Your task to perform on an android device: Is it going to rain tomorrow? Image 0: 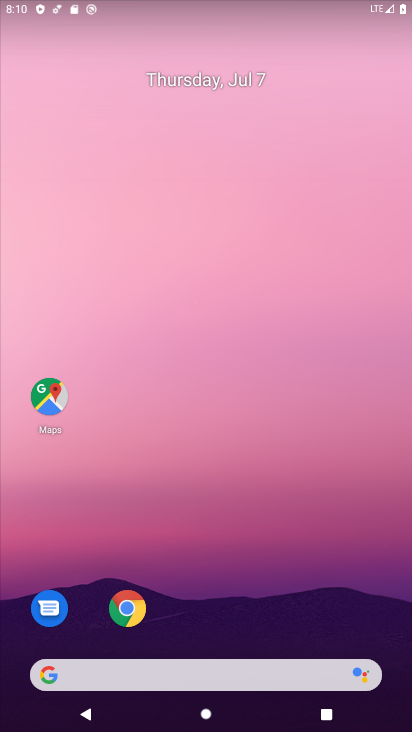
Step 0: click (267, 671)
Your task to perform on an android device: Is it going to rain tomorrow? Image 1: 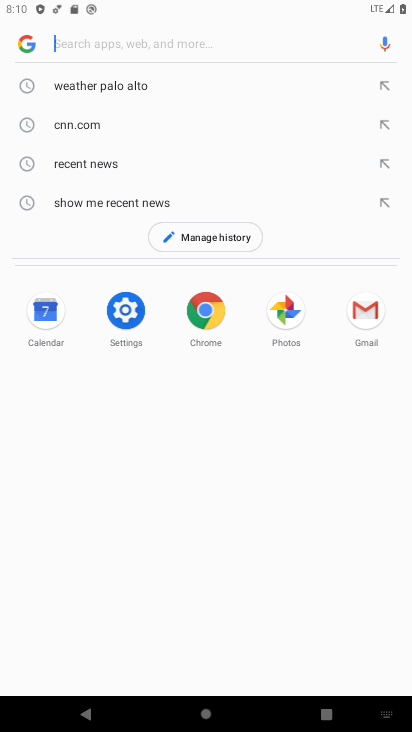
Step 1: type "weather"
Your task to perform on an android device: Is it going to rain tomorrow? Image 2: 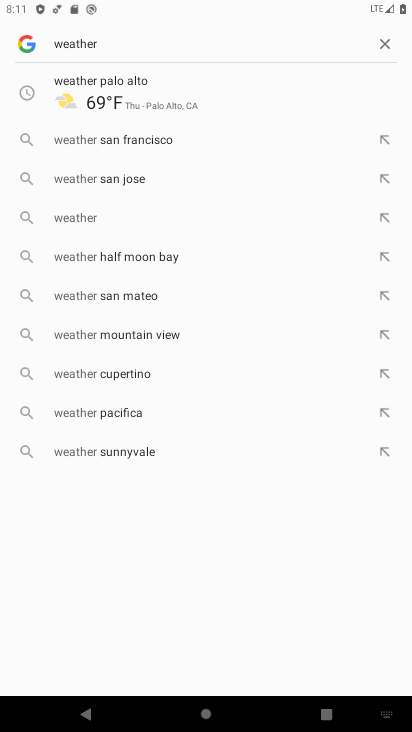
Step 2: click (135, 94)
Your task to perform on an android device: Is it going to rain tomorrow? Image 3: 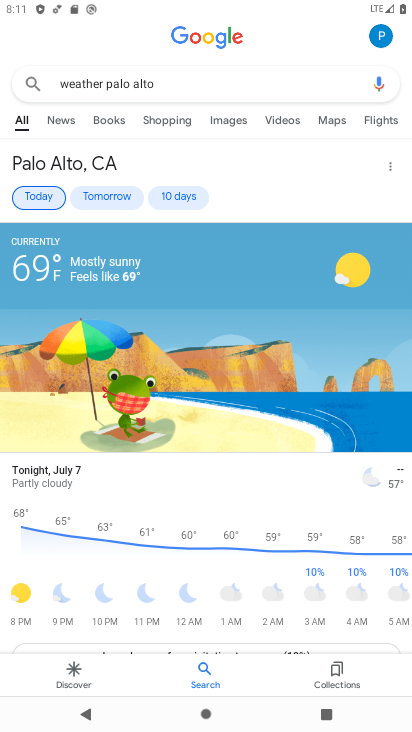
Step 3: click (115, 193)
Your task to perform on an android device: Is it going to rain tomorrow? Image 4: 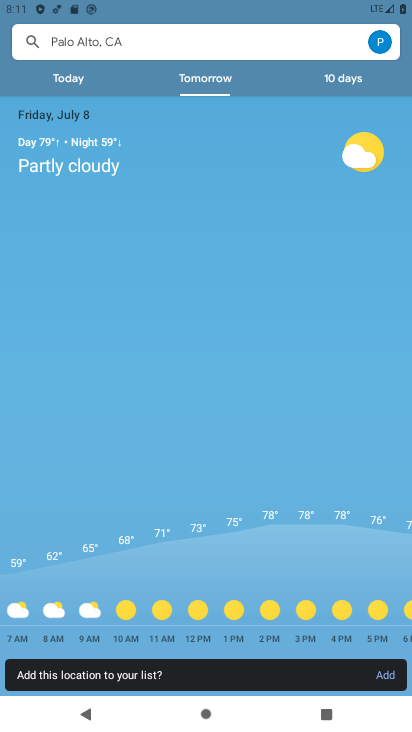
Step 4: task complete